Your task to perform on an android device: turn off airplane mode Image 0: 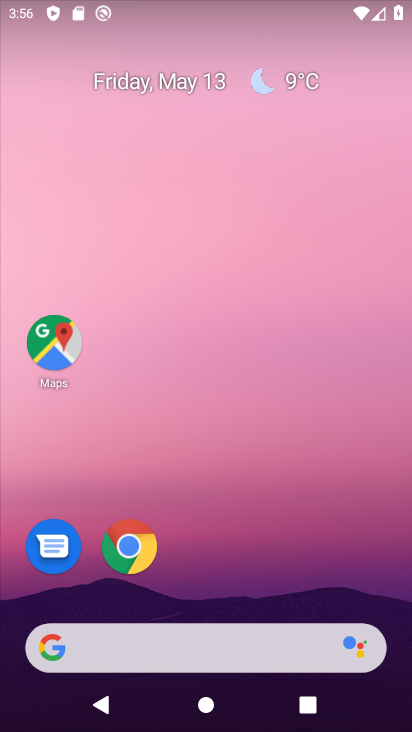
Step 0: drag from (213, 633) to (174, 11)
Your task to perform on an android device: turn off airplane mode Image 1: 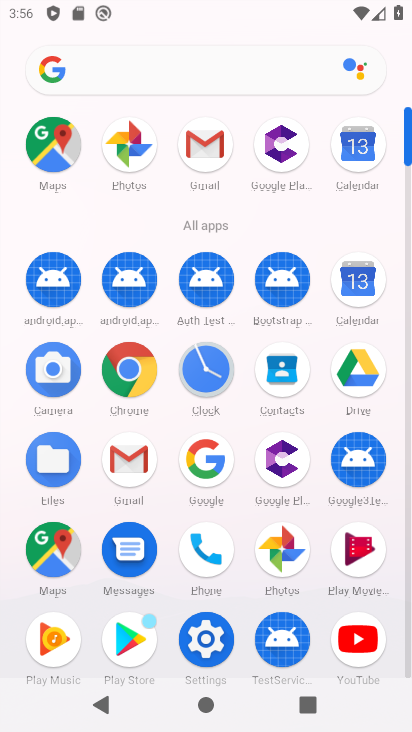
Step 1: click (196, 653)
Your task to perform on an android device: turn off airplane mode Image 2: 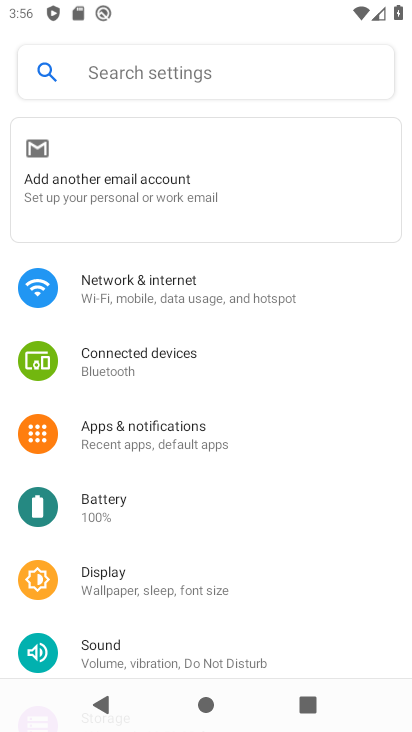
Step 2: click (150, 276)
Your task to perform on an android device: turn off airplane mode Image 3: 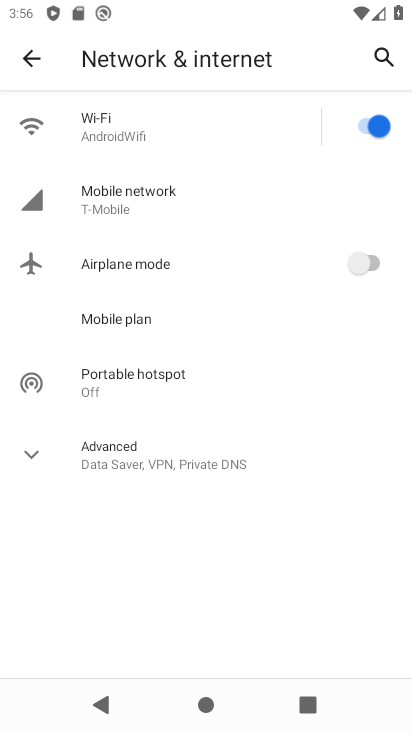
Step 3: task complete